Your task to perform on an android device: Go to Google maps Image 0: 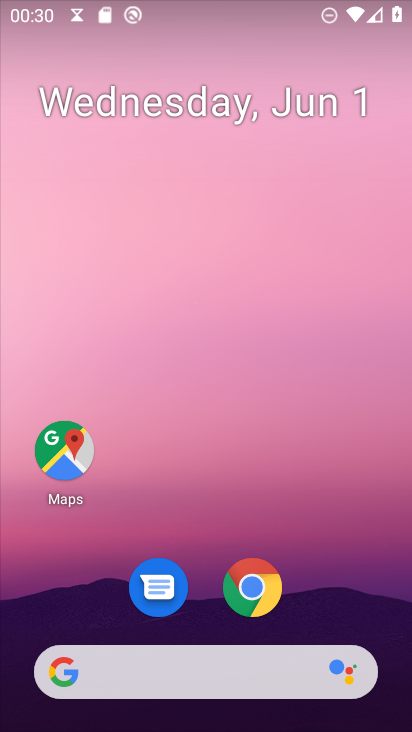
Step 0: click (66, 471)
Your task to perform on an android device: Go to Google maps Image 1: 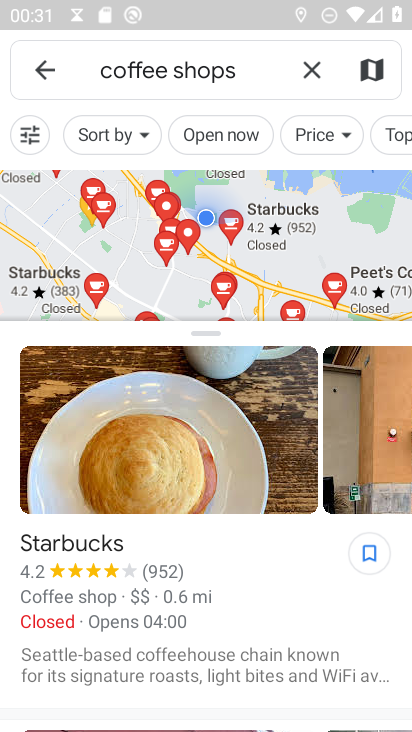
Step 1: click (41, 75)
Your task to perform on an android device: Go to Google maps Image 2: 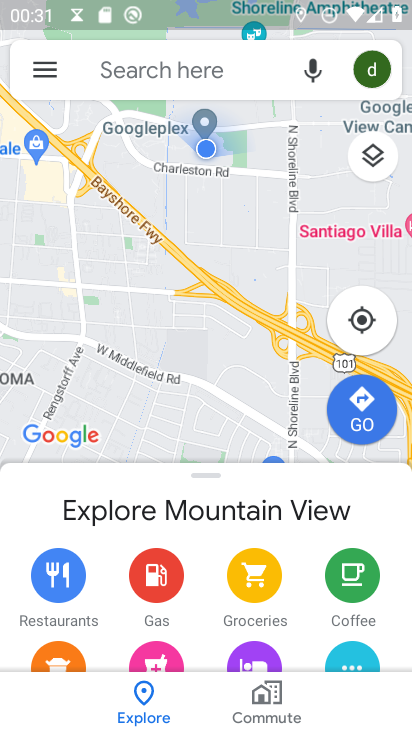
Step 2: task complete